Your task to perform on an android device: Open settings Image 0: 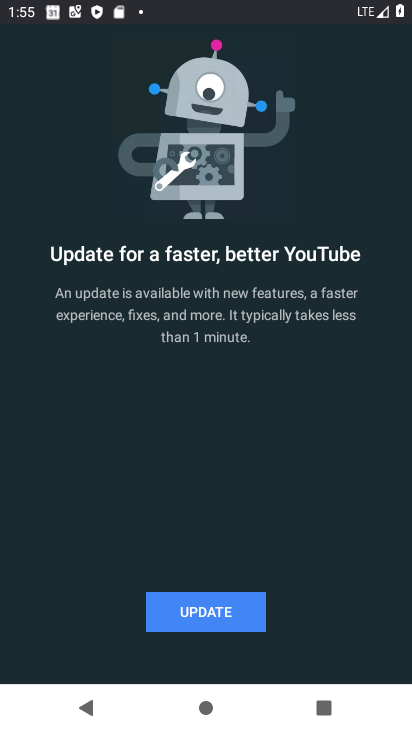
Step 0: press home button
Your task to perform on an android device: Open settings Image 1: 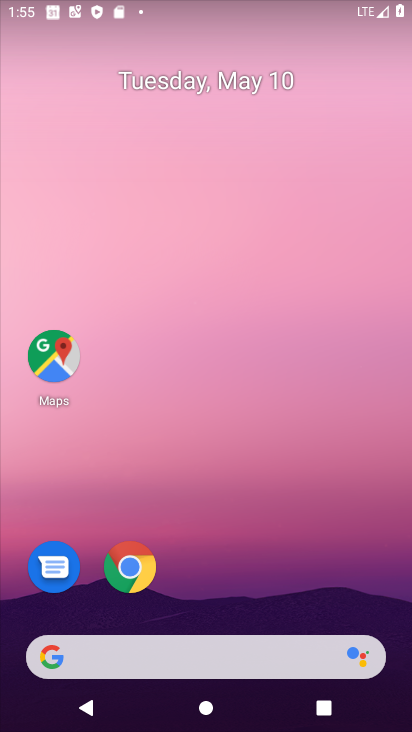
Step 1: drag from (396, 645) to (284, 8)
Your task to perform on an android device: Open settings Image 2: 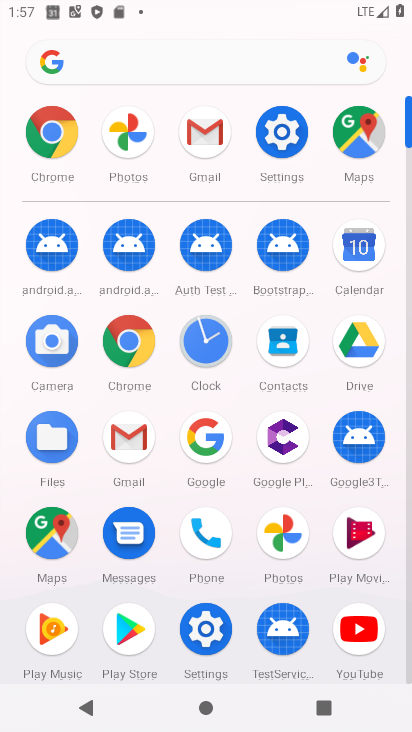
Step 2: click (195, 633)
Your task to perform on an android device: Open settings Image 3: 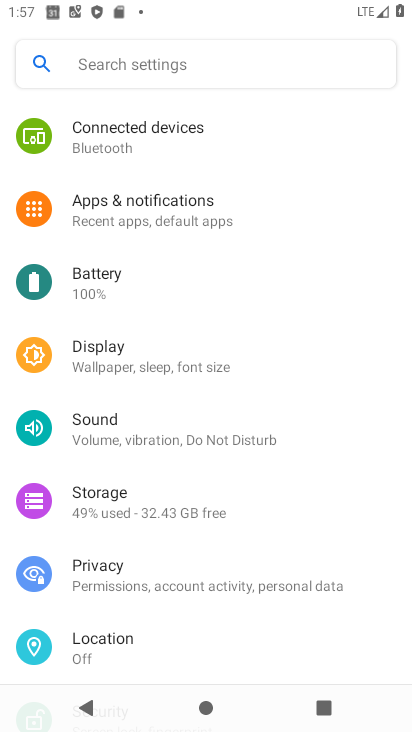
Step 3: task complete